Your task to perform on an android device: Open eBay Image 0: 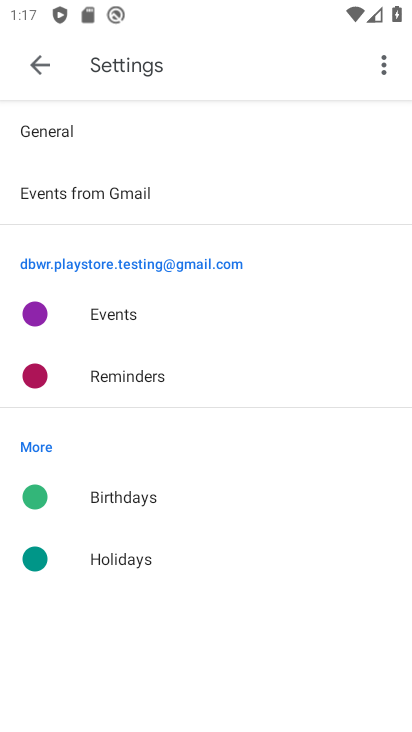
Step 0: press home button
Your task to perform on an android device: Open eBay Image 1: 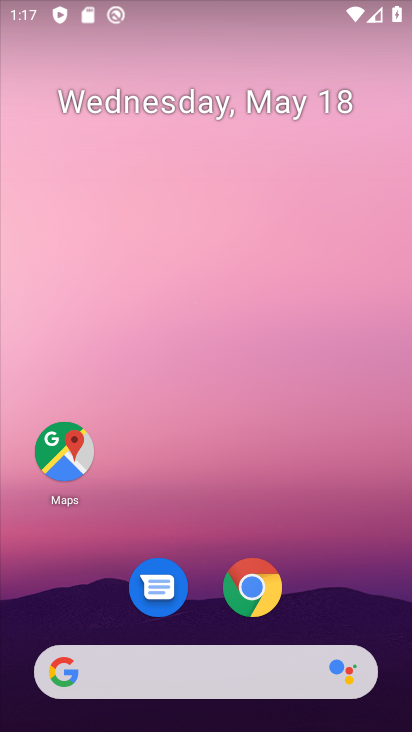
Step 1: click (239, 585)
Your task to perform on an android device: Open eBay Image 2: 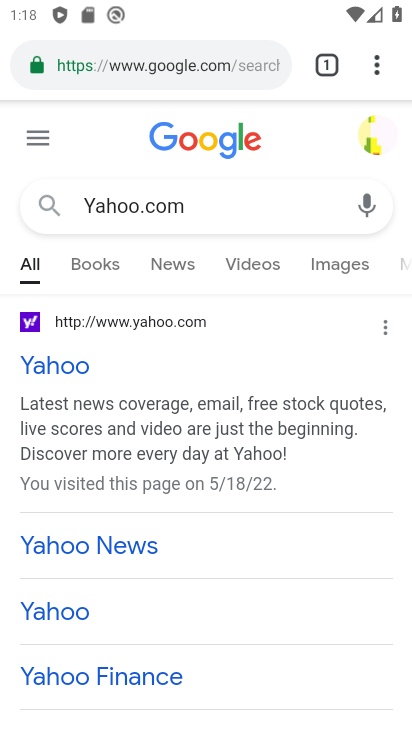
Step 2: type "eBay"
Your task to perform on an android device: Open eBay Image 3: 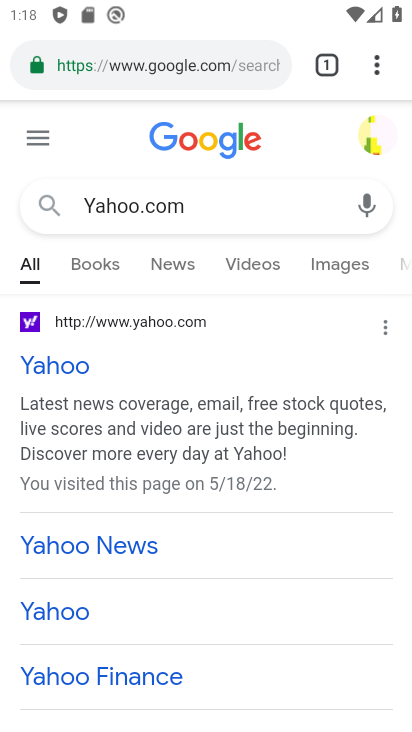
Step 3: click (283, 67)
Your task to perform on an android device: Open eBay Image 4: 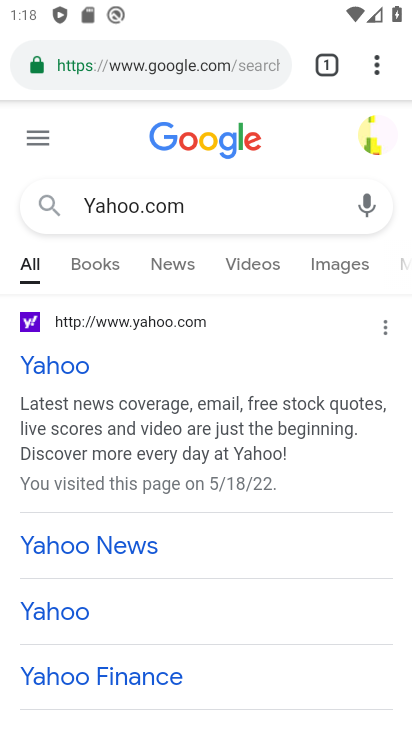
Step 4: click (277, 63)
Your task to perform on an android device: Open eBay Image 5: 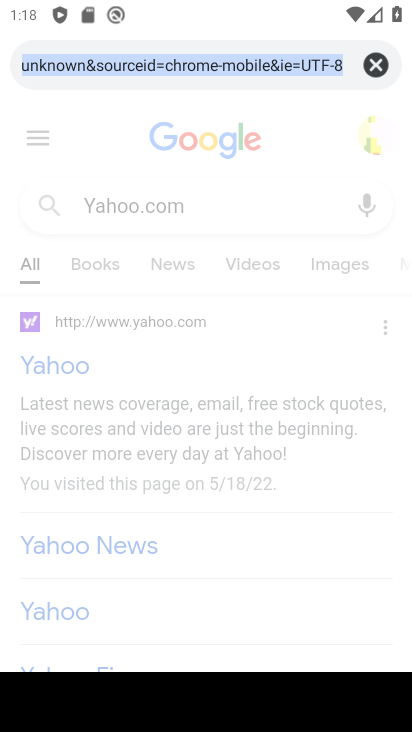
Step 5: click (368, 64)
Your task to perform on an android device: Open eBay Image 6: 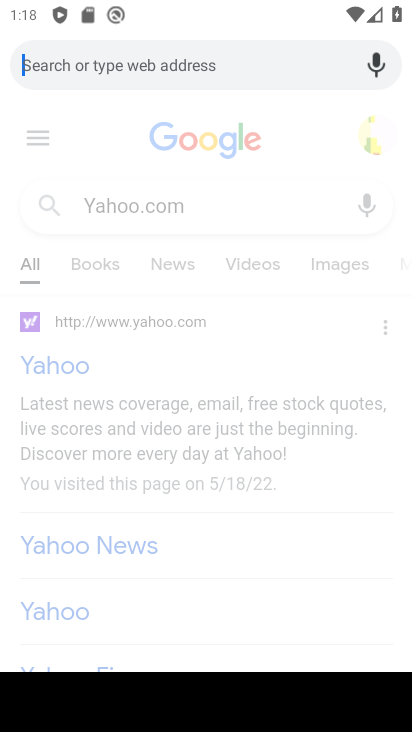
Step 6: type "eBay"
Your task to perform on an android device: Open eBay Image 7: 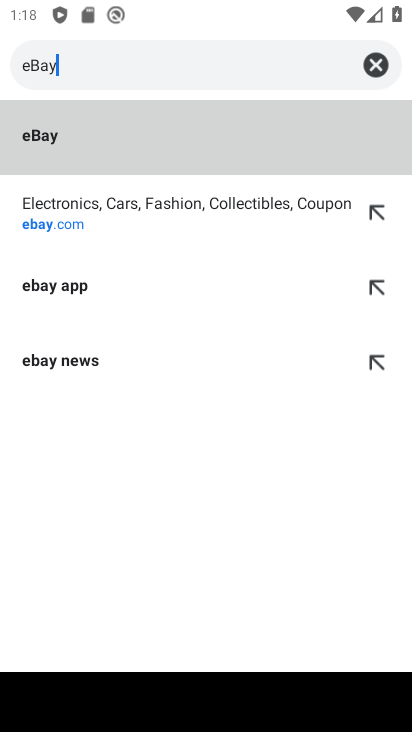
Step 7: click (48, 136)
Your task to perform on an android device: Open eBay Image 8: 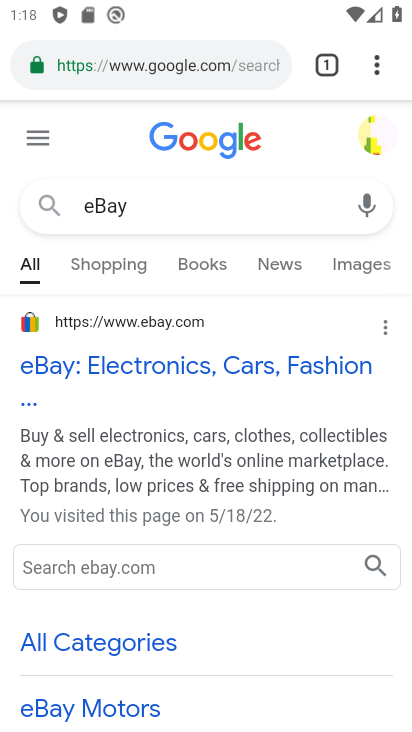
Step 8: task complete